Your task to perform on an android device: clear history in the chrome app Image 0: 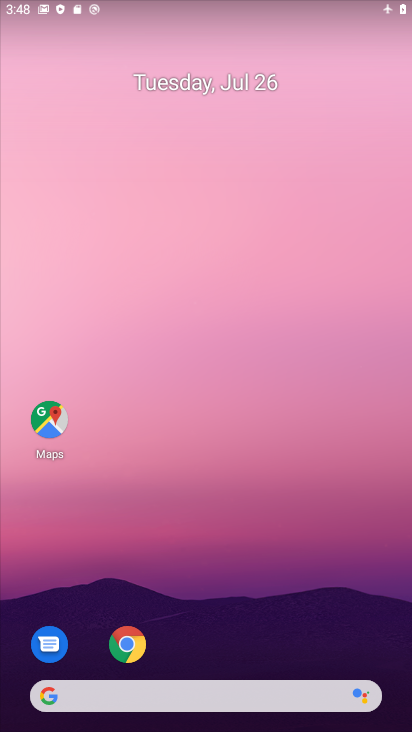
Step 0: click (131, 646)
Your task to perform on an android device: clear history in the chrome app Image 1: 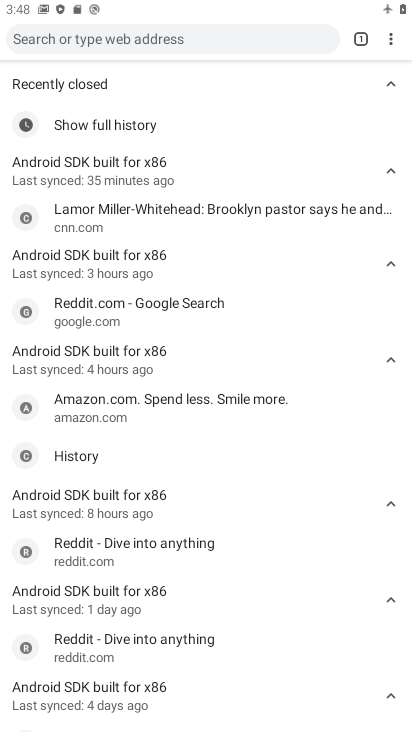
Step 1: click (390, 46)
Your task to perform on an android device: clear history in the chrome app Image 2: 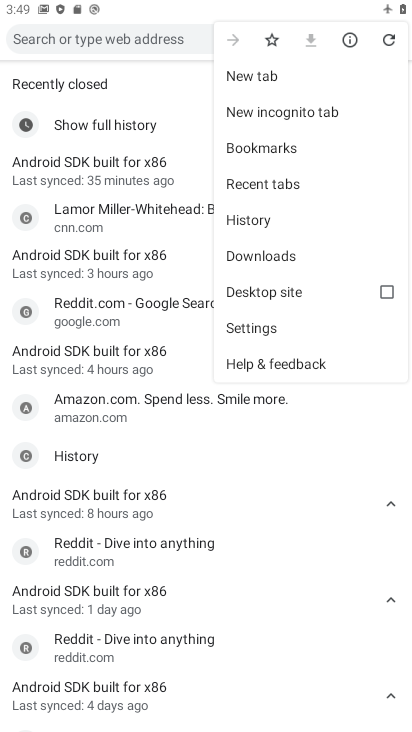
Step 2: click (238, 221)
Your task to perform on an android device: clear history in the chrome app Image 3: 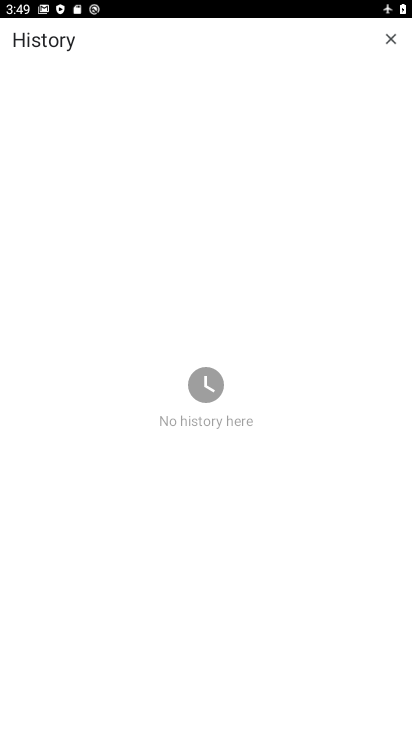
Step 3: task complete